Your task to perform on an android device: open app "Airtel Thanks" (install if not already installed), go to login, and select forgot password Image 0: 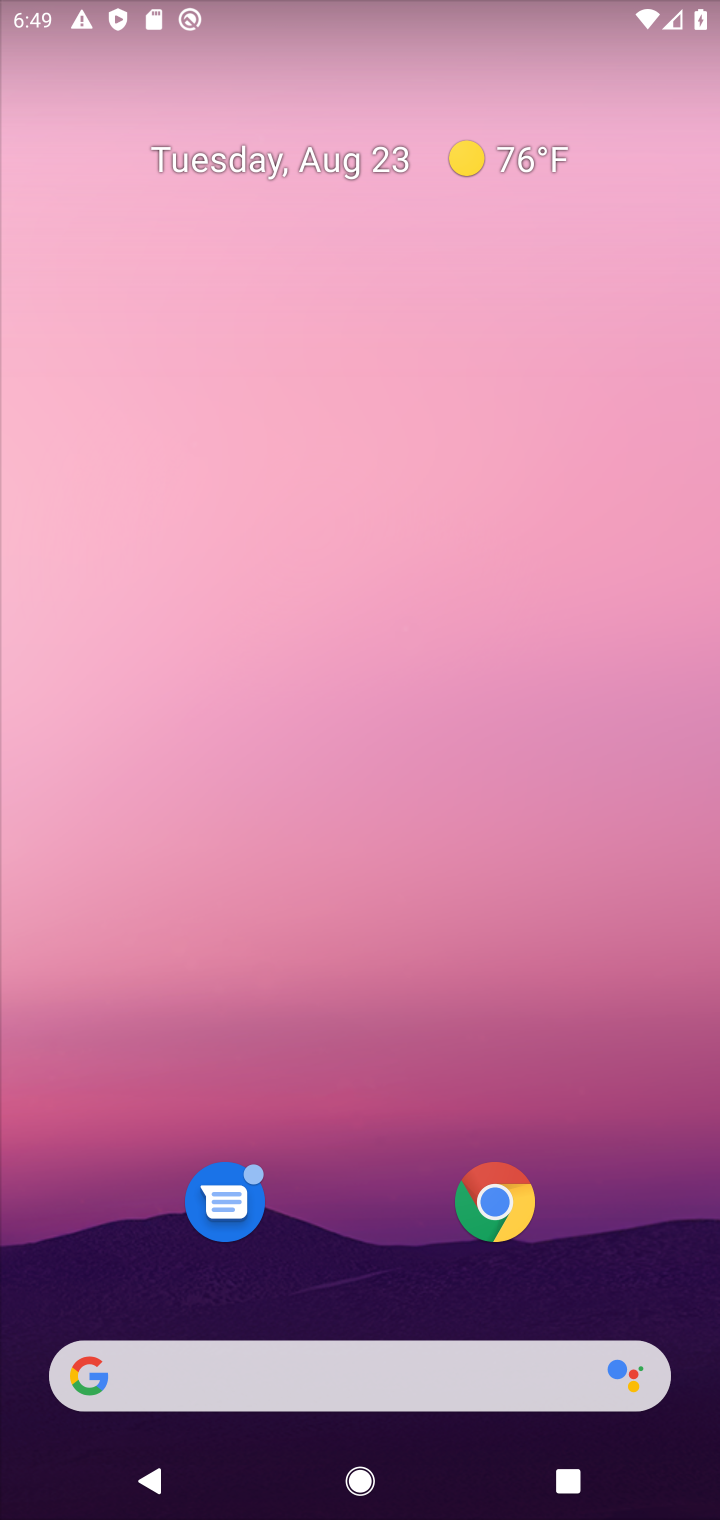
Step 0: drag from (413, 1311) to (403, 151)
Your task to perform on an android device: open app "Airtel Thanks" (install if not already installed), go to login, and select forgot password Image 1: 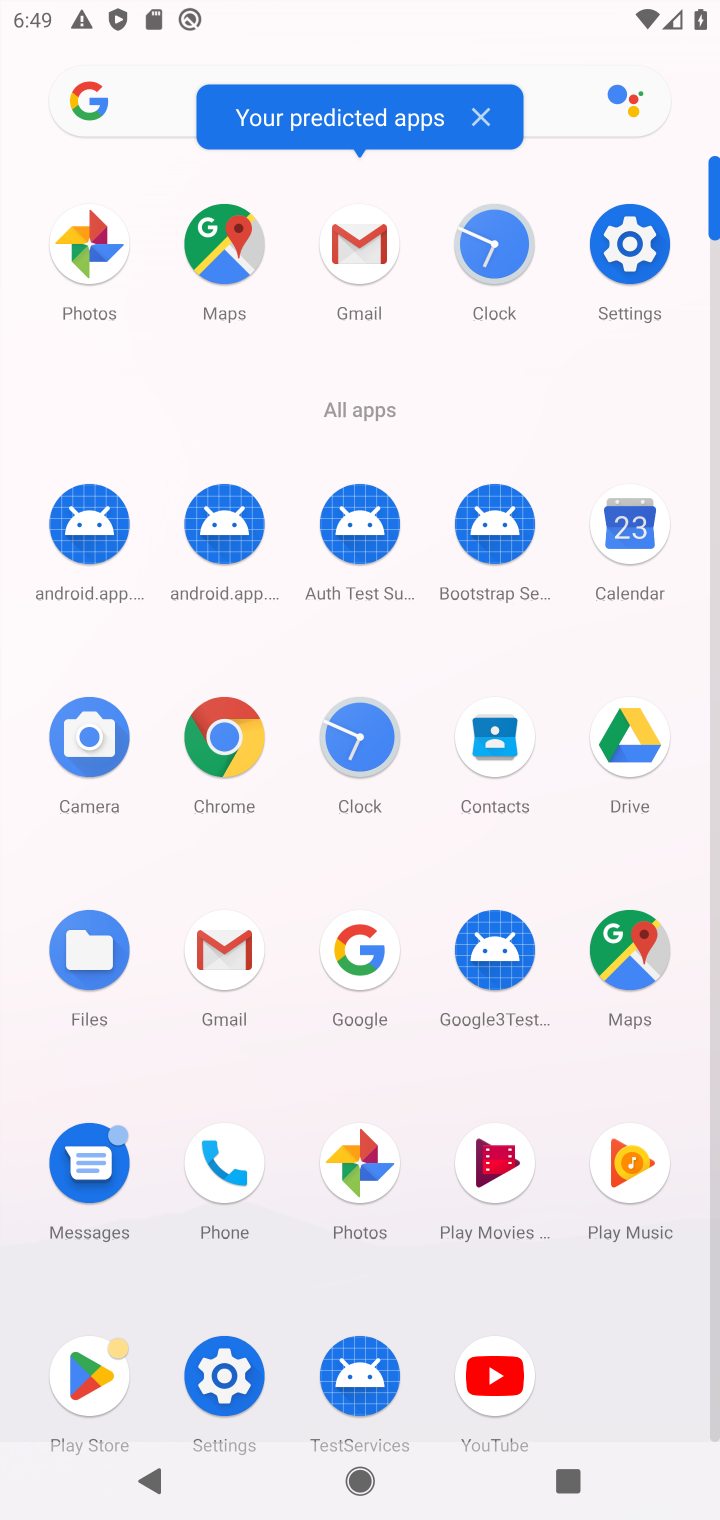
Step 1: click (66, 1372)
Your task to perform on an android device: open app "Airtel Thanks" (install if not already installed), go to login, and select forgot password Image 2: 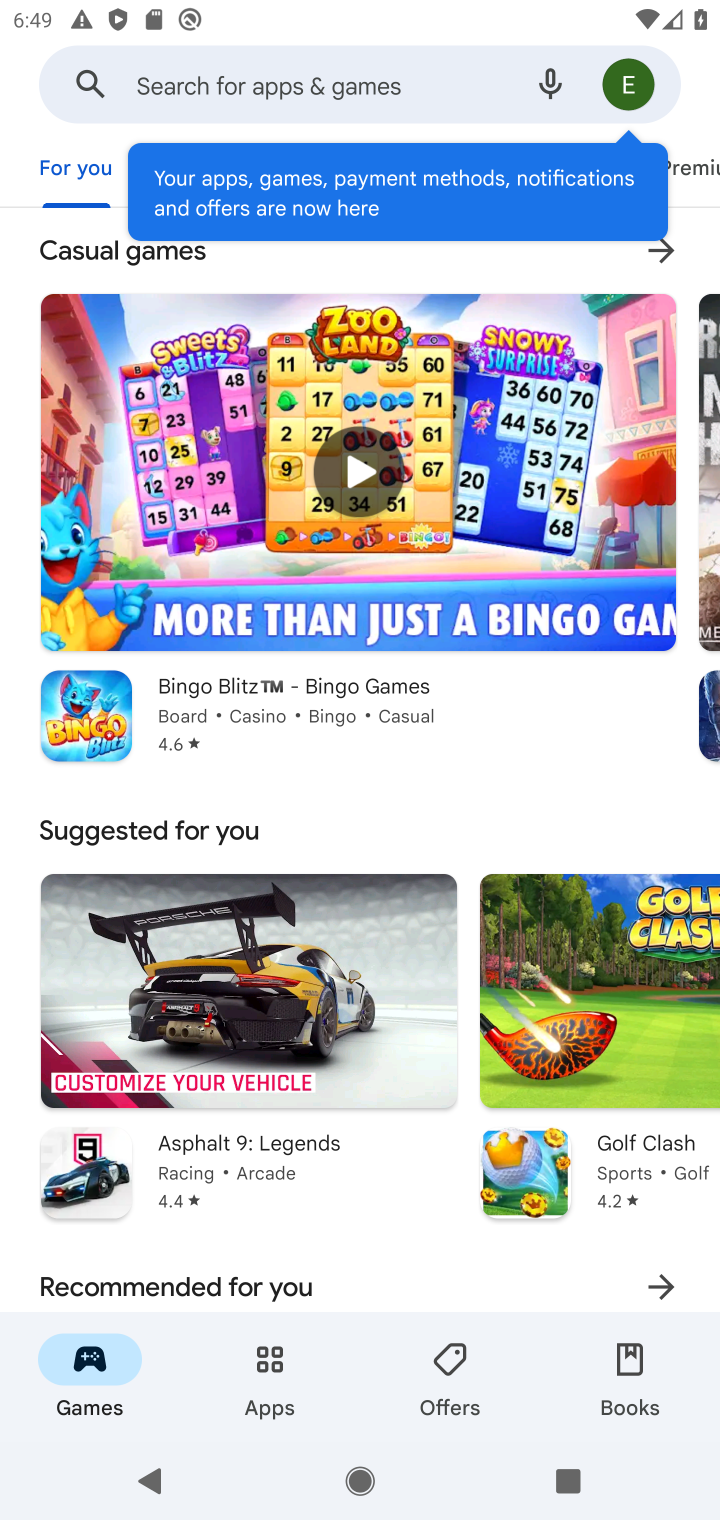
Step 2: click (434, 87)
Your task to perform on an android device: open app "Airtel Thanks" (install if not already installed), go to login, and select forgot password Image 3: 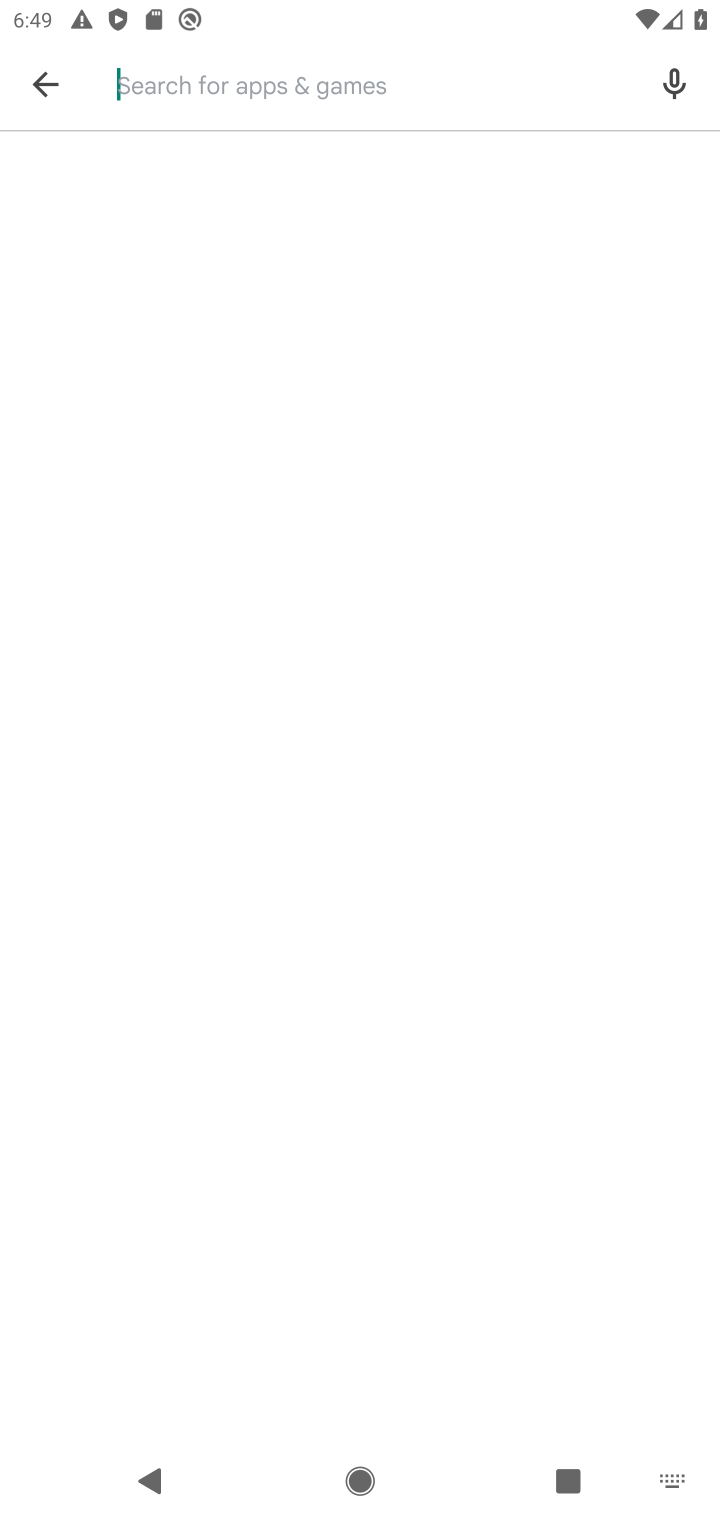
Step 3: type "Airtel Thanks "
Your task to perform on an android device: open app "Airtel Thanks" (install if not already installed), go to login, and select forgot password Image 4: 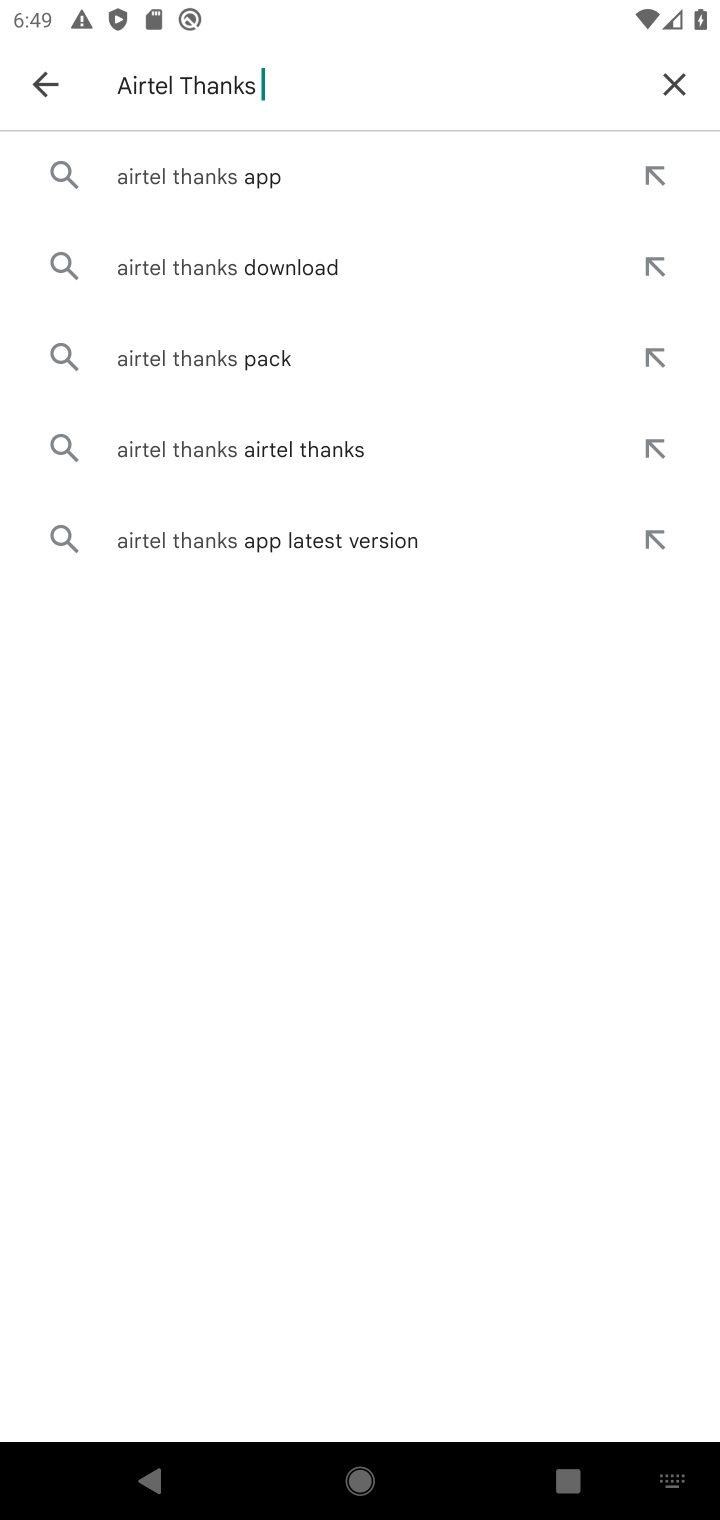
Step 4: click (259, 195)
Your task to perform on an android device: open app "Airtel Thanks" (install if not already installed), go to login, and select forgot password Image 5: 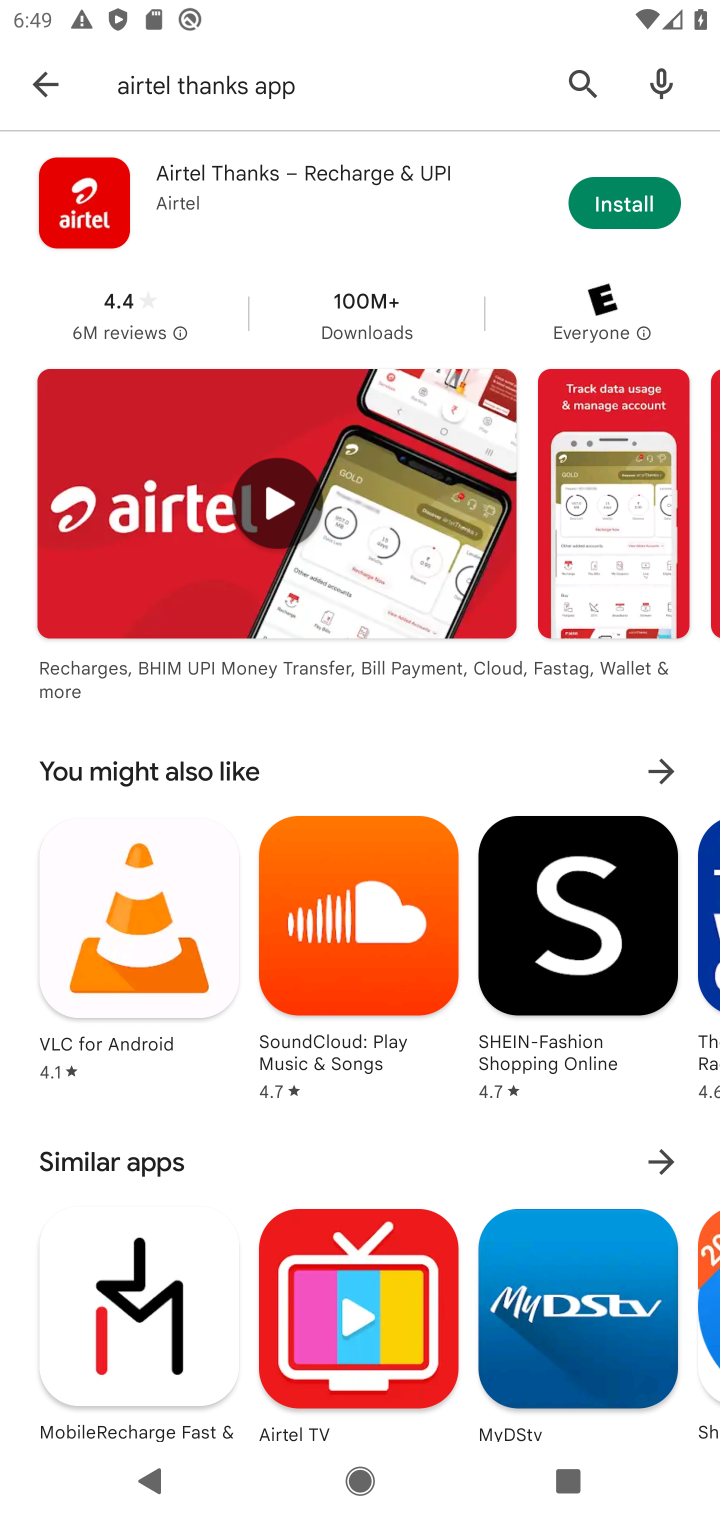
Step 5: click (649, 205)
Your task to perform on an android device: open app "Airtel Thanks" (install if not already installed), go to login, and select forgot password Image 6: 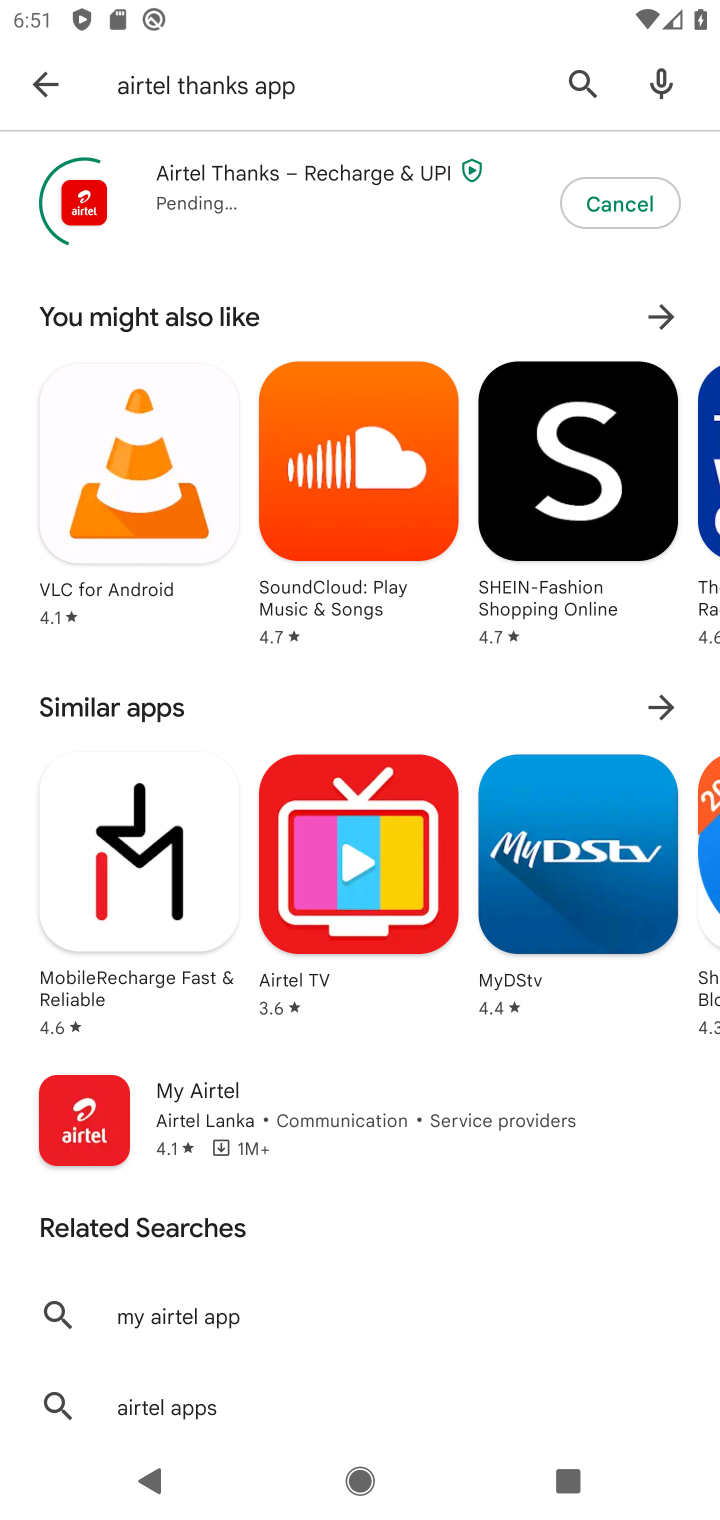
Step 6: task complete